Your task to perform on an android device: allow notifications from all sites in the chrome app Image 0: 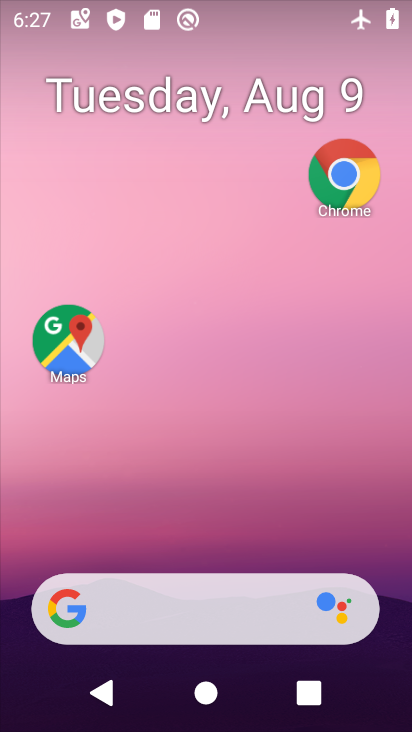
Step 0: drag from (203, 515) to (222, 7)
Your task to perform on an android device: allow notifications from all sites in the chrome app Image 1: 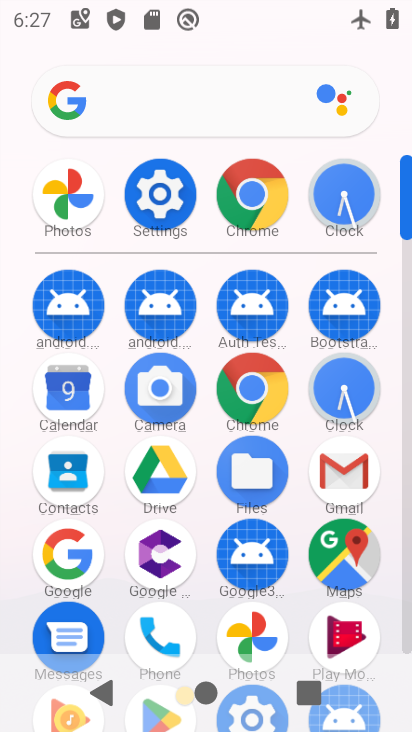
Step 1: click (239, 388)
Your task to perform on an android device: allow notifications from all sites in the chrome app Image 2: 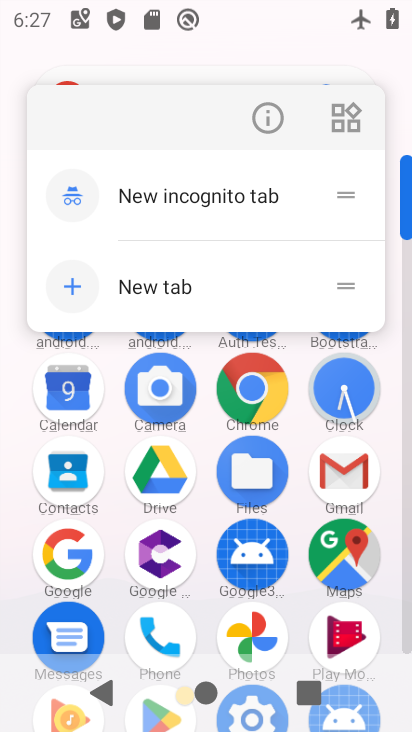
Step 2: click (264, 136)
Your task to perform on an android device: allow notifications from all sites in the chrome app Image 3: 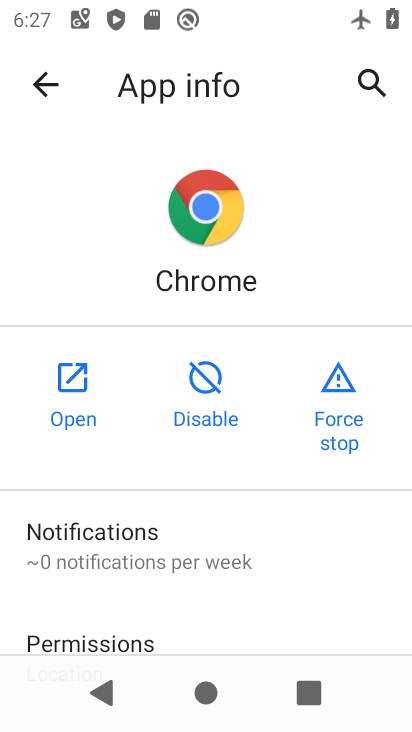
Step 3: click (77, 397)
Your task to perform on an android device: allow notifications from all sites in the chrome app Image 4: 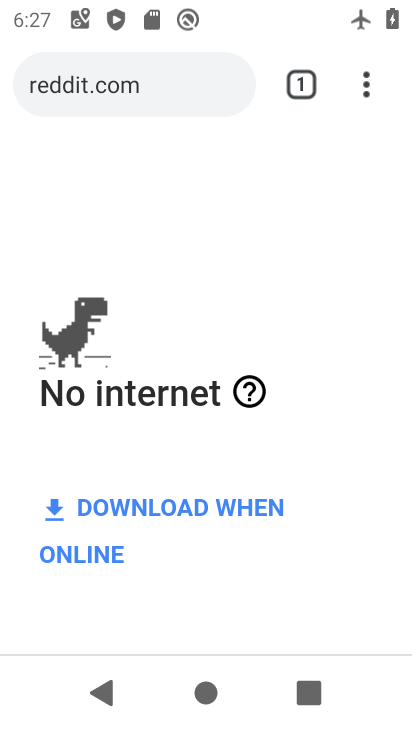
Step 4: drag from (373, 77) to (91, 500)
Your task to perform on an android device: allow notifications from all sites in the chrome app Image 5: 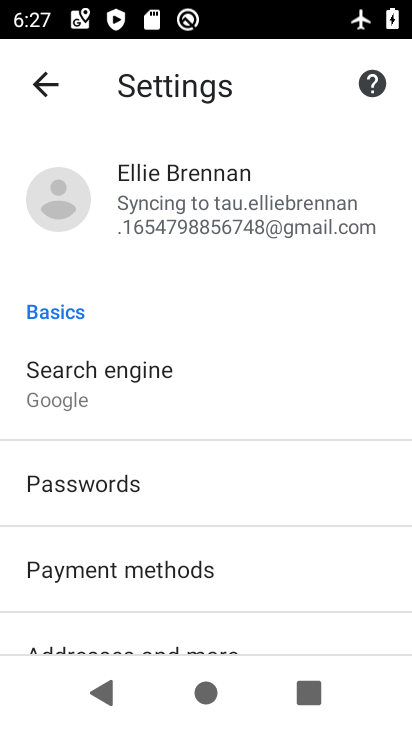
Step 5: drag from (158, 552) to (109, 181)
Your task to perform on an android device: allow notifications from all sites in the chrome app Image 6: 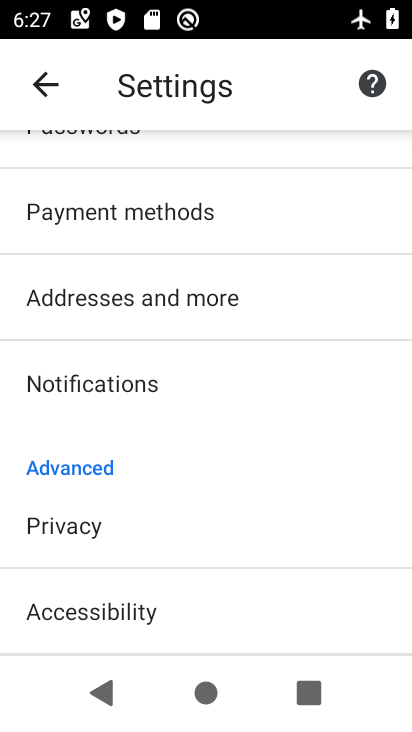
Step 6: drag from (256, 611) to (217, 319)
Your task to perform on an android device: allow notifications from all sites in the chrome app Image 7: 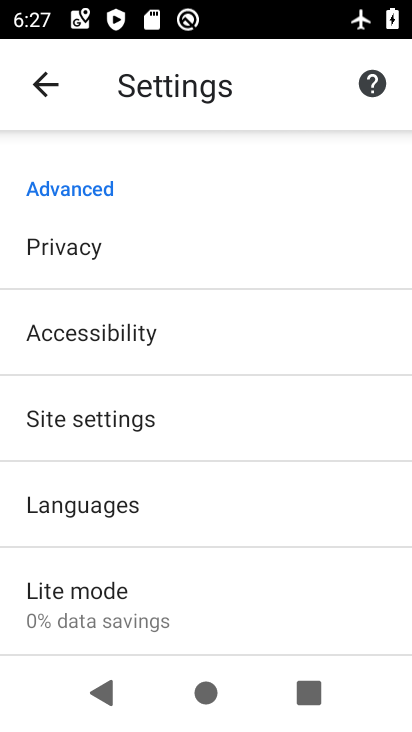
Step 7: click (109, 427)
Your task to perform on an android device: allow notifications from all sites in the chrome app Image 8: 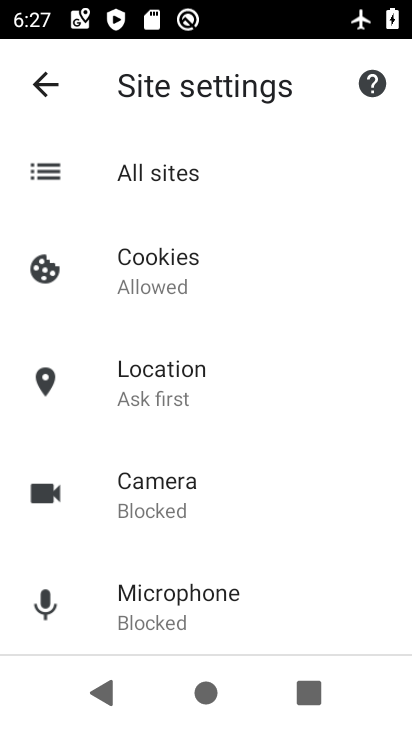
Step 8: drag from (143, 526) to (81, 101)
Your task to perform on an android device: allow notifications from all sites in the chrome app Image 9: 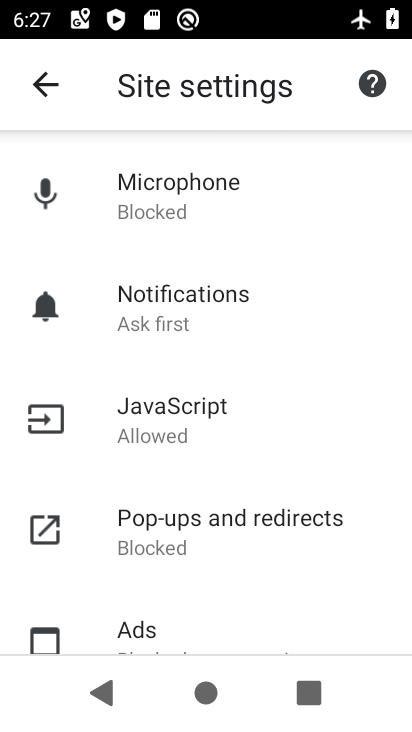
Step 9: click (196, 331)
Your task to perform on an android device: allow notifications from all sites in the chrome app Image 10: 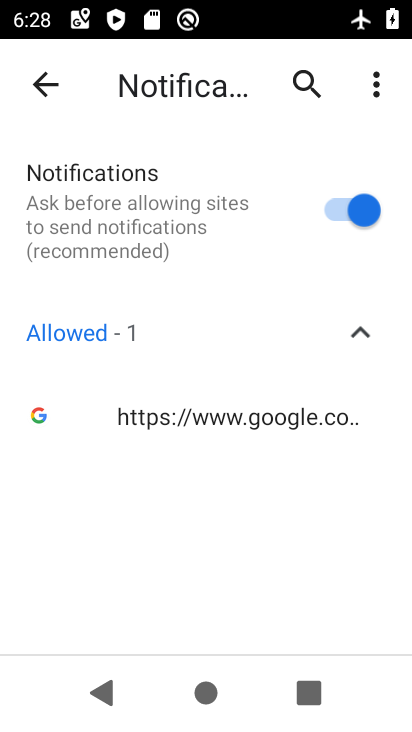
Step 10: task complete